Your task to perform on an android device: Add "razer blade" to the cart on target, then select checkout. Image 0: 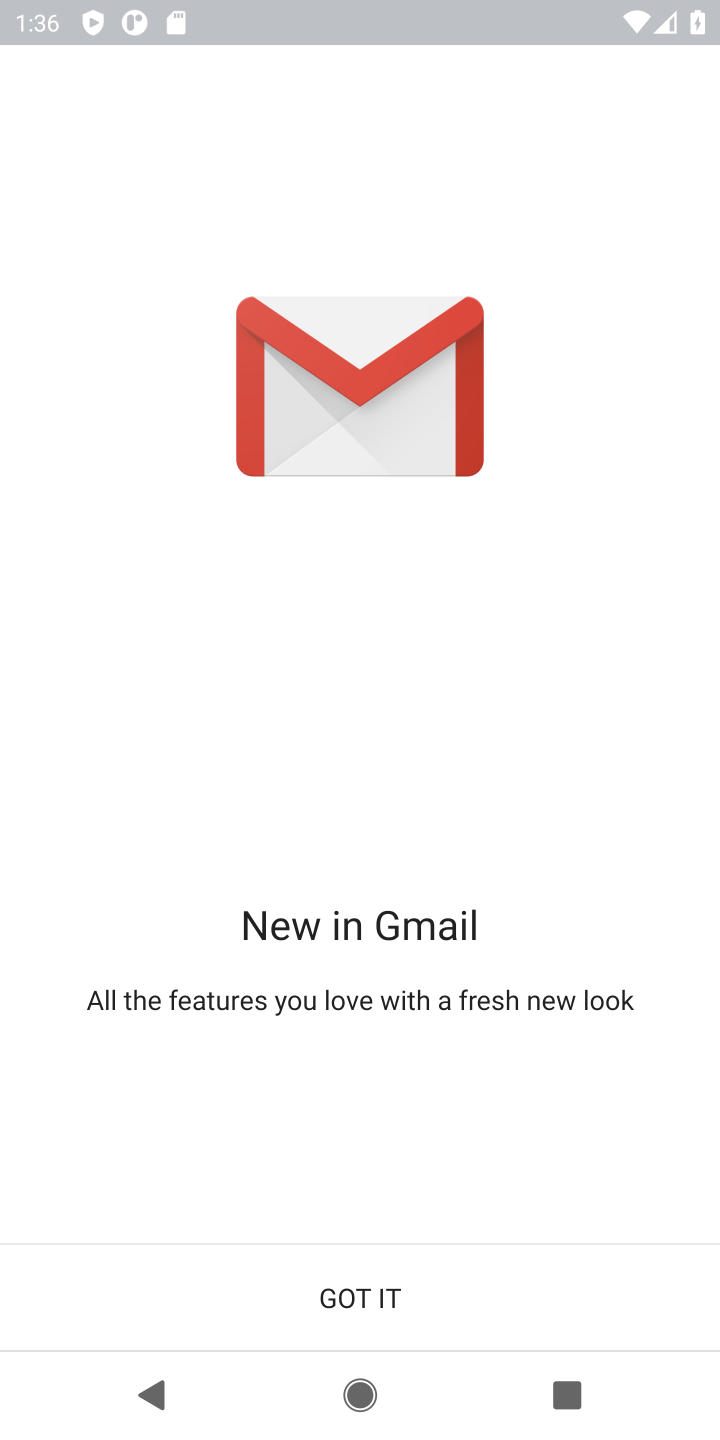
Step 0: press home button
Your task to perform on an android device: Add "razer blade" to the cart on target, then select checkout. Image 1: 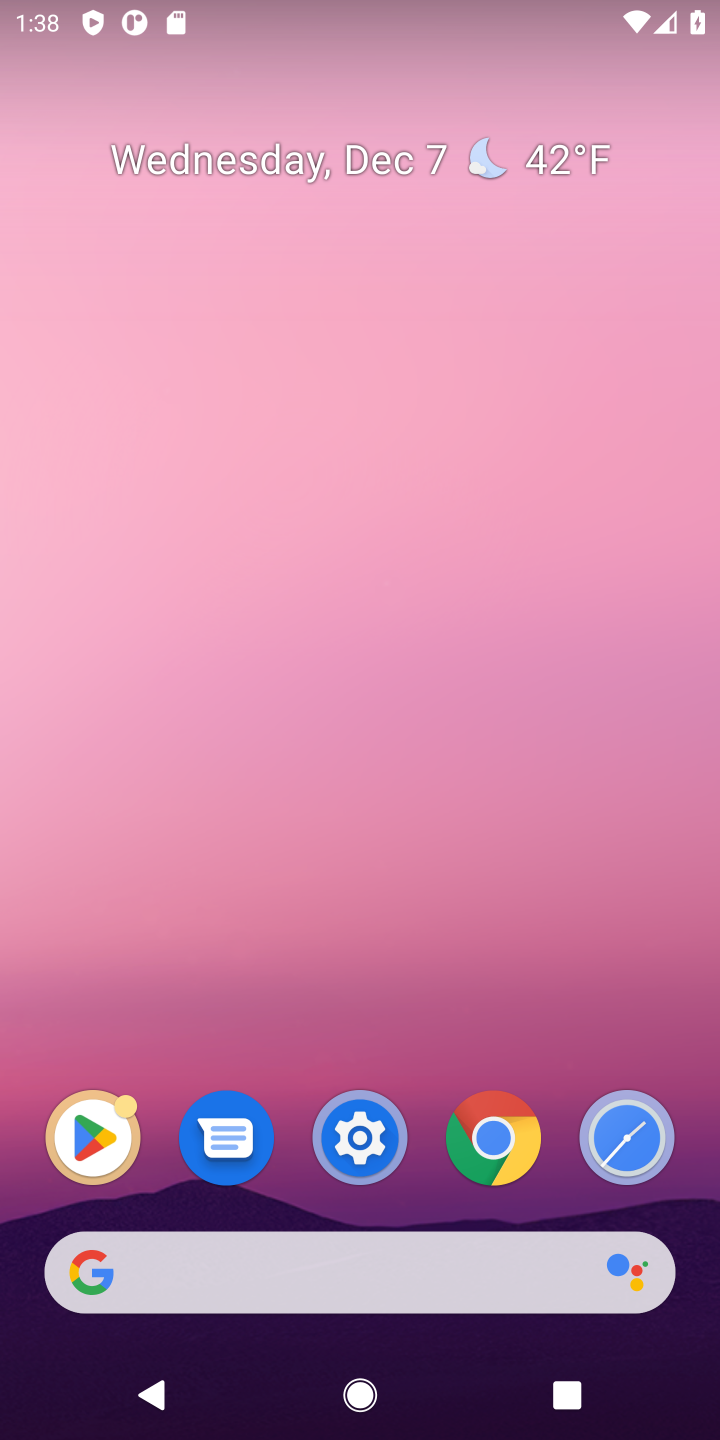
Step 1: task complete